Your task to perform on an android device: turn on translation in the chrome app Image 0: 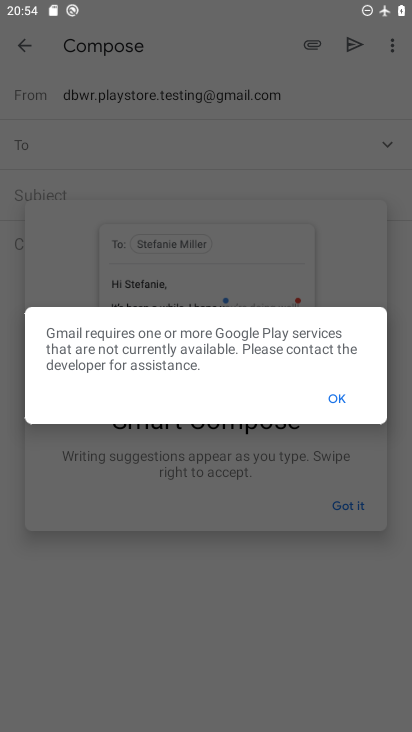
Step 0: press home button
Your task to perform on an android device: turn on translation in the chrome app Image 1: 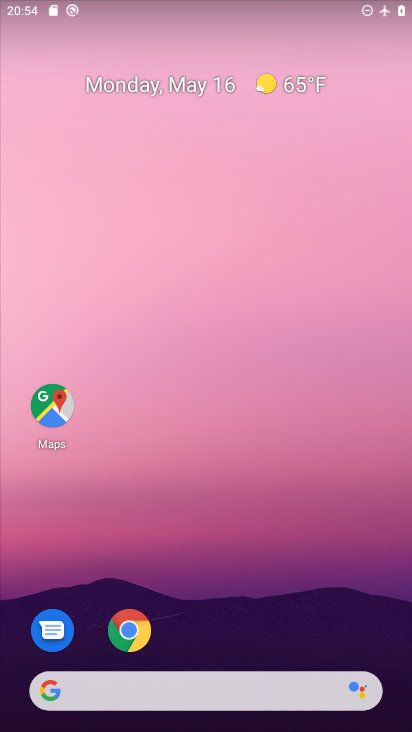
Step 1: click (148, 632)
Your task to perform on an android device: turn on translation in the chrome app Image 2: 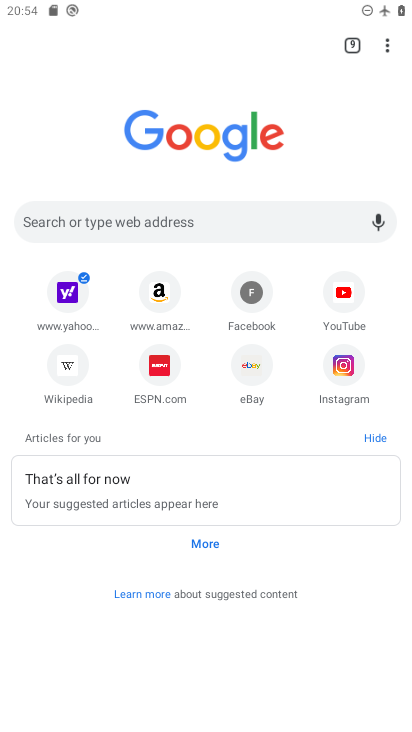
Step 2: drag from (388, 47) to (233, 373)
Your task to perform on an android device: turn on translation in the chrome app Image 3: 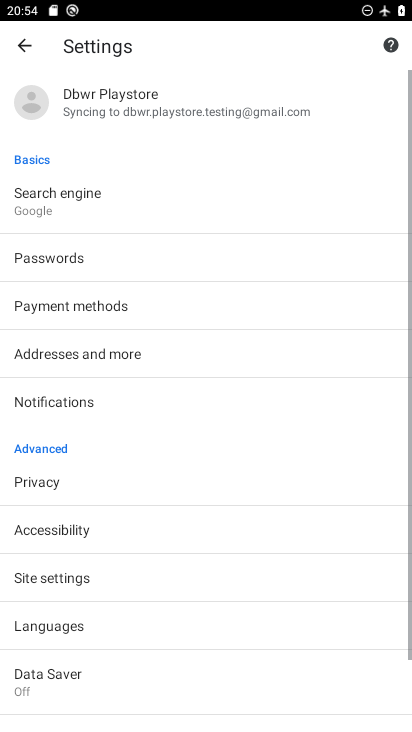
Step 3: drag from (149, 602) to (131, 468)
Your task to perform on an android device: turn on translation in the chrome app Image 4: 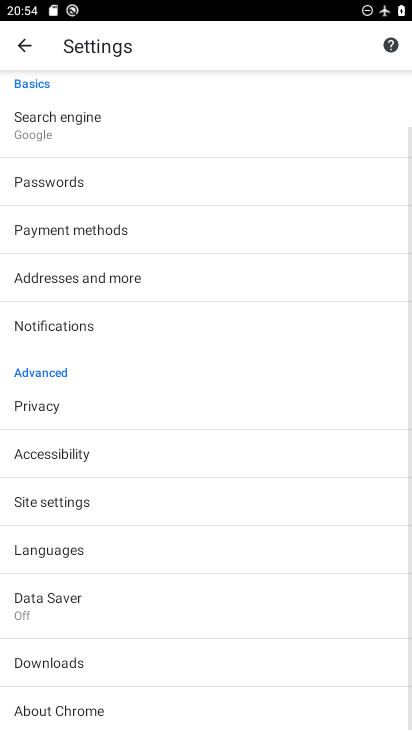
Step 4: click (89, 556)
Your task to perform on an android device: turn on translation in the chrome app Image 5: 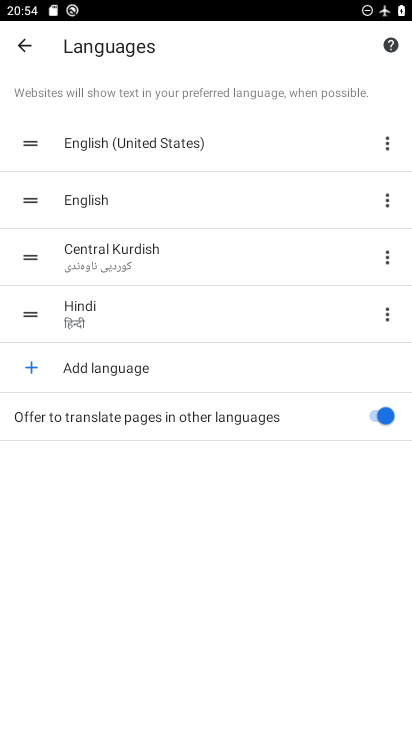
Step 5: task complete